Your task to perform on an android device: turn on the 12-hour format for clock Image 0: 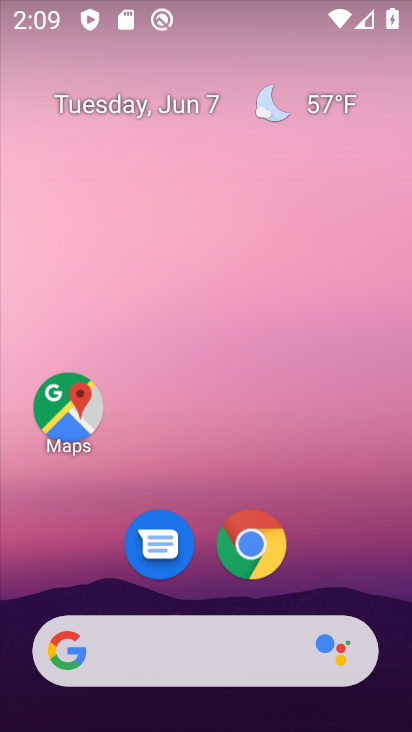
Step 0: drag from (328, 607) to (345, 149)
Your task to perform on an android device: turn on the 12-hour format for clock Image 1: 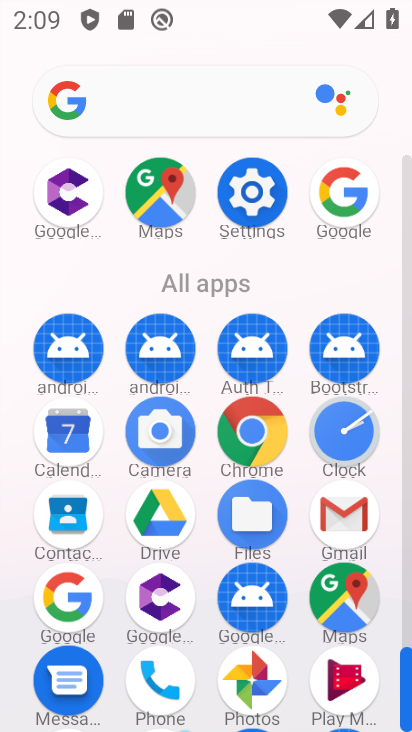
Step 1: click (354, 433)
Your task to perform on an android device: turn on the 12-hour format for clock Image 2: 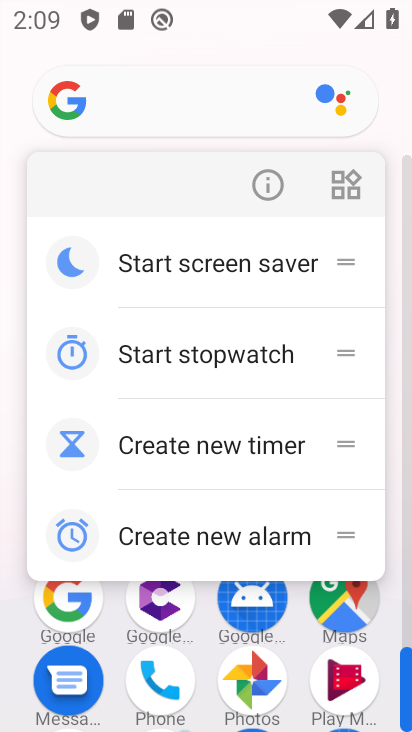
Step 2: click (283, 610)
Your task to perform on an android device: turn on the 12-hour format for clock Image 3: 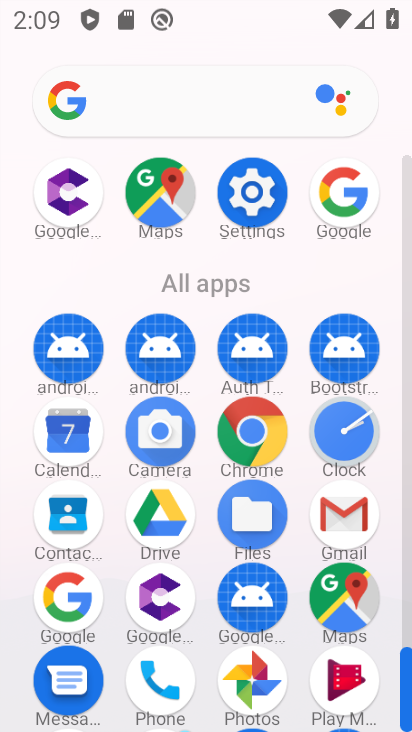
Step 3: click (348, 426)
Your task to perform on an android device: turn on the 12-hour format for clock Image 4: 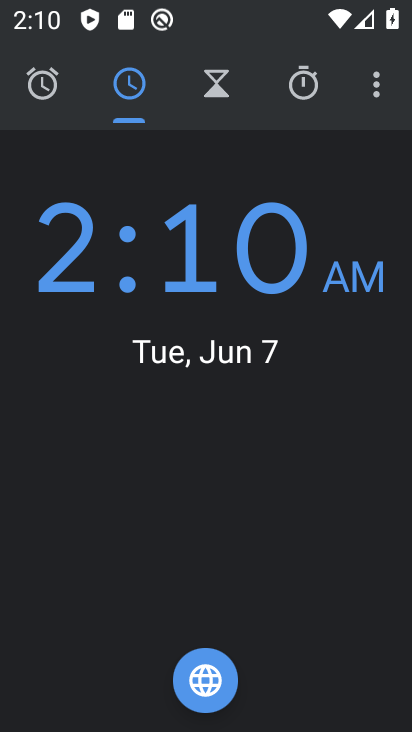
Step 4: click (375, 81)
Your task to perform on an android device: turn on the 12-hour format for clock Image 5: 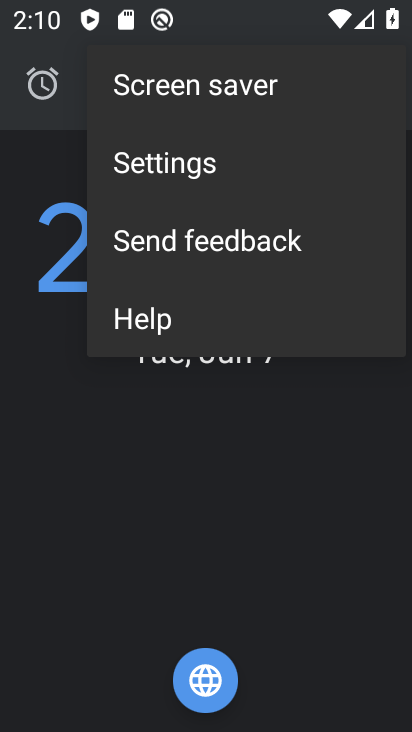
Step 5: click (195, 148)
Your task to perform on an android device: turn on the 12-hour format for clock Image 6: 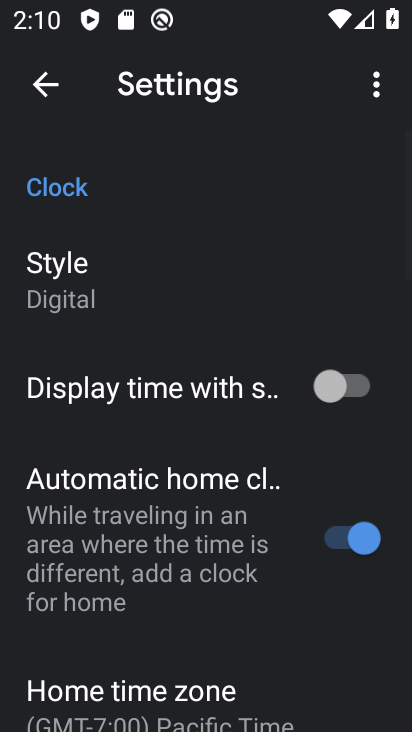
Step 6: drag from (220, 653) to (218, 346)
Your task to perform on an android device: turn on the 12-hour format for clock Image 7: 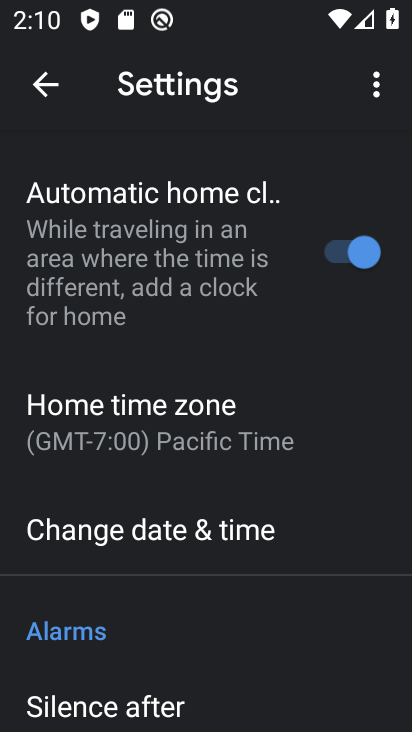
Step 7: click (168, 534)
Your task to perform on an android device: turn on the 12-hour format for clock Image 8: 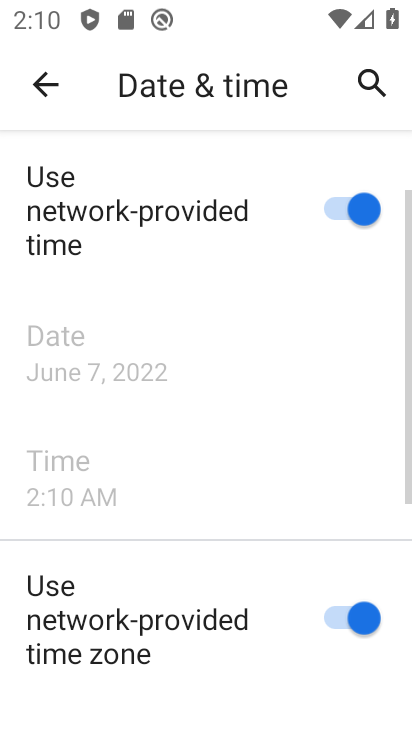
Step 8: drag from (256, 616) to (271, 391)
Your task to perform on an android device: turn on the 12-hour format for clock Image 9: 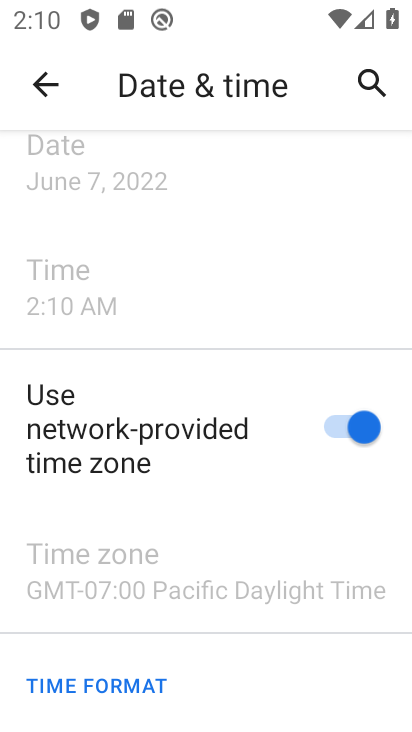
Step 9: drag from (280, 595) to (244, 316)
Your task to perform on an android device: turn on the 12-hour format for clock Image 10: 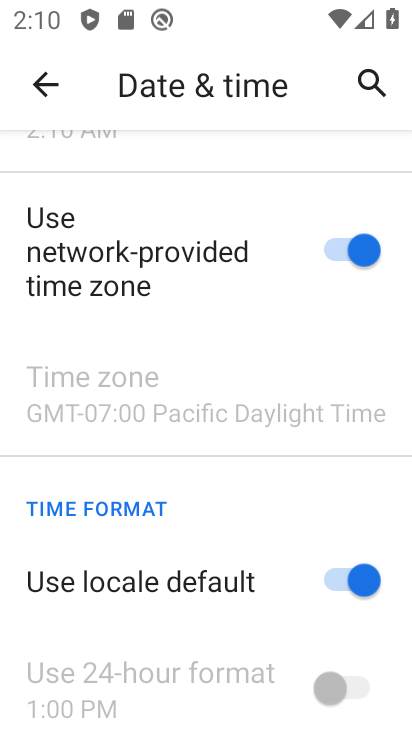
Step 10: drag from (254, 518) to (271, 399)
Your task to perform on an android device: turn on the 12-hour format for clock Image 11: 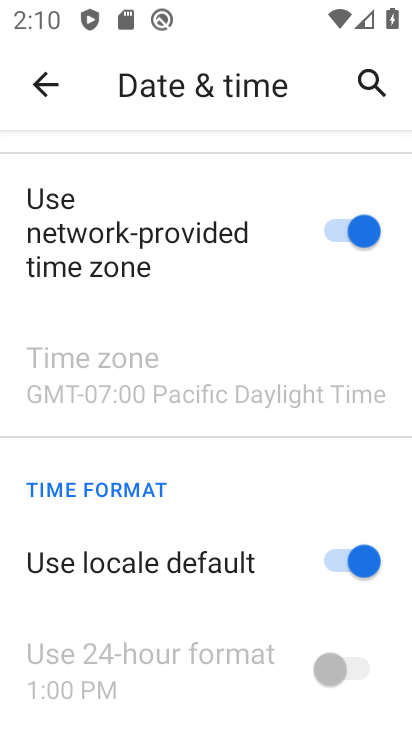
Step 11: click (343, 537)
Your task to perform on an android device: turn on the 12-hour format for clock Image 12: 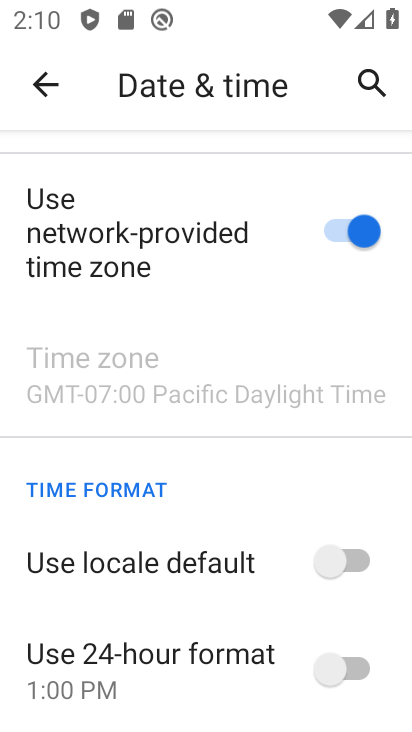
Step 12: click (337, 659)
Your task to perform on an android device: turn on the 12-hour format for clock Image 13: 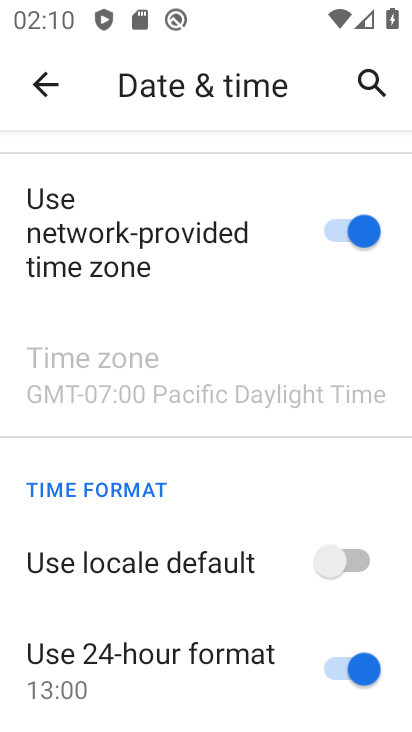
Step 13: task complete